Your task to perform on an android device: change the clock style Image 0: 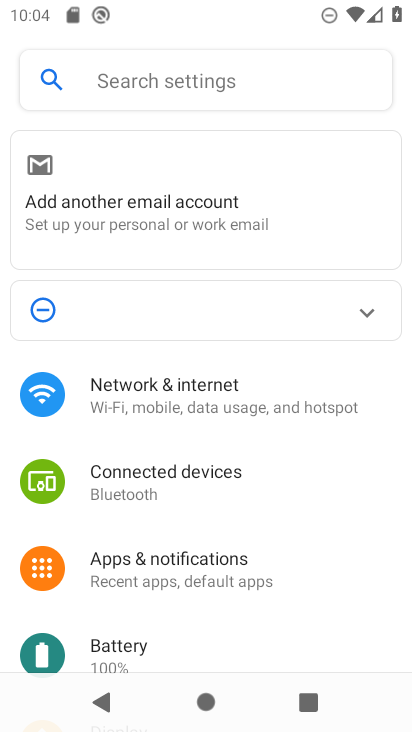
Step 0: press home button
Your task to perform on an android device: change the clock style Image 1: 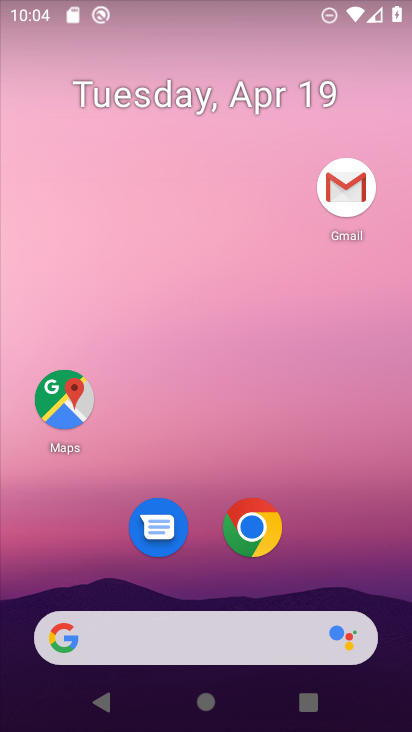
Step 1: drag from (372, 508) to (383, 86)
Your task to perform on an android device: change the clock style Image 2: 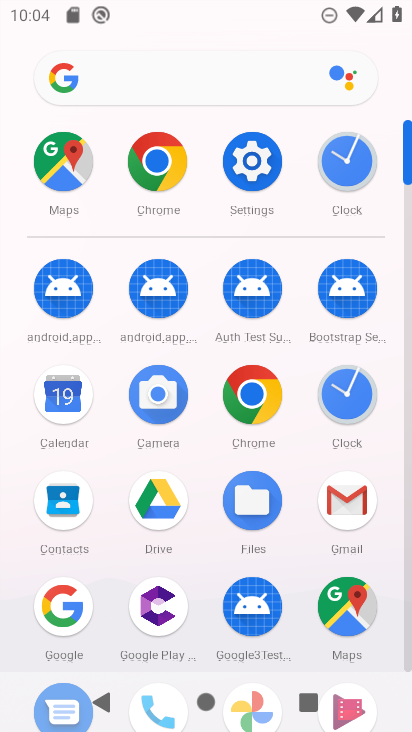
Step 2: click (343, 396)
Your task to perform on an android device: change the clock style Image 3: 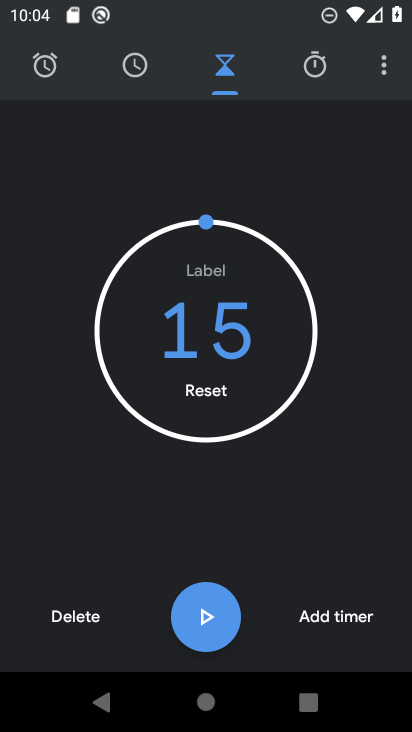
Step 3: click (386, 69)
Your task to perform on an android device: change the clock style Image 4: 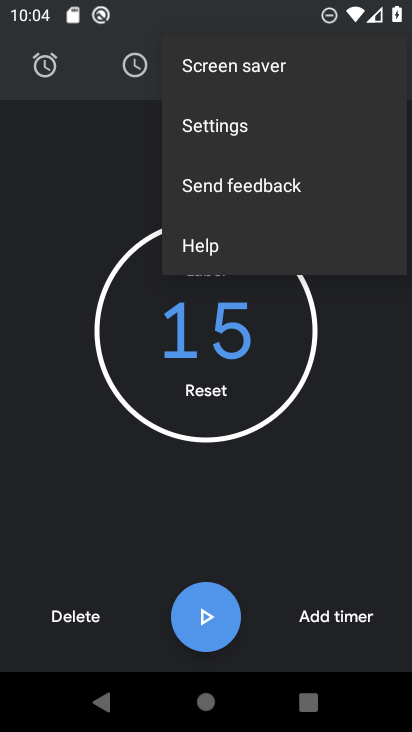
Step 4: click (240, 128)
Your task to perform on an android device: change the clock style Image 5: 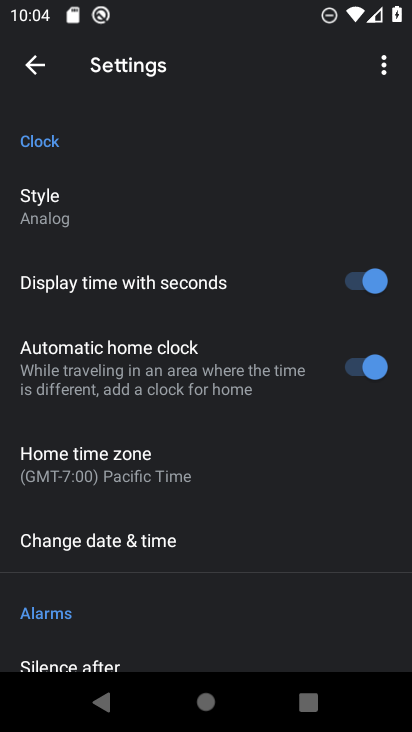
Step 5: click (83, 213)
Your task to perform on an android device: change the clock style Image 6: 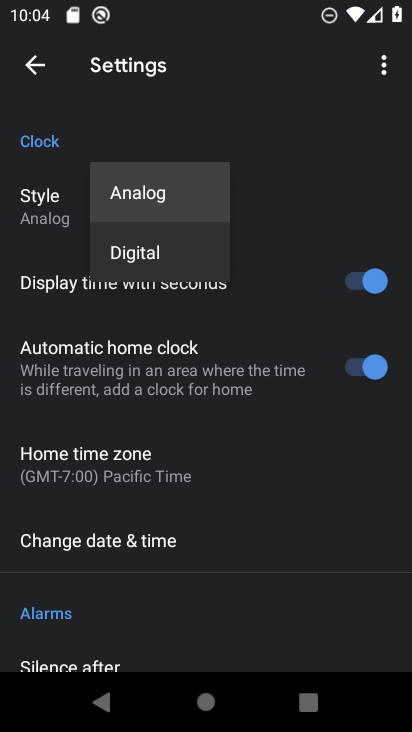
Step 6: click (136, 253)
Your task to perform on an android device: change the clock style Image 7: 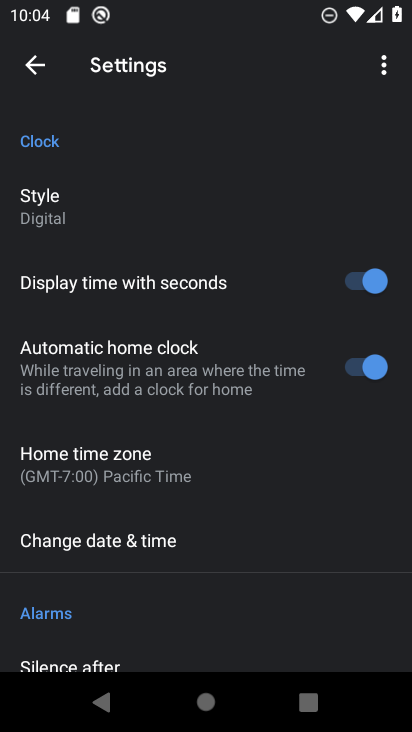
Step 7: task complete